Your task to perform on an android device: turn on showing notifications on the lock screen Image 0: 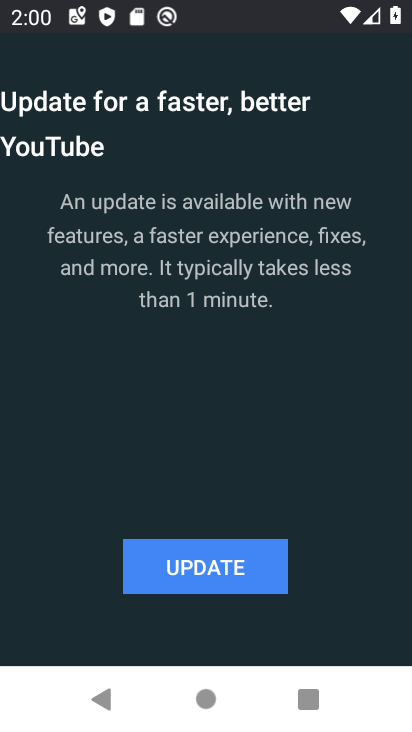
Step 0: press home button
Your task to perform on an android device: turn on showing notifications on the lock screen Image 1: 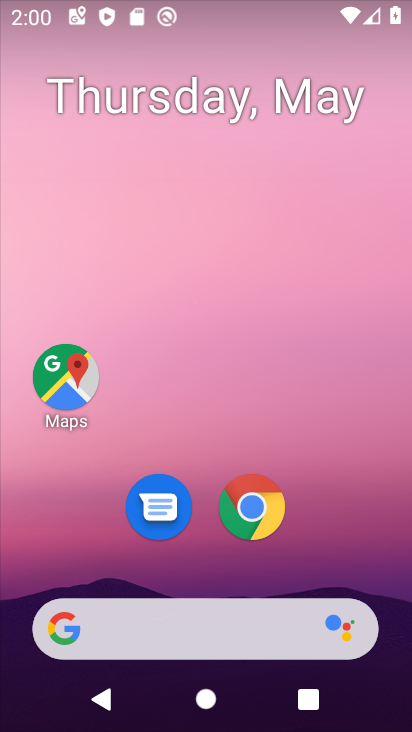
Step 1: drag from (271, 622) to (384, 4)
Your task to perform on an android device: turn on showing notifications on the lock screen Image 2: 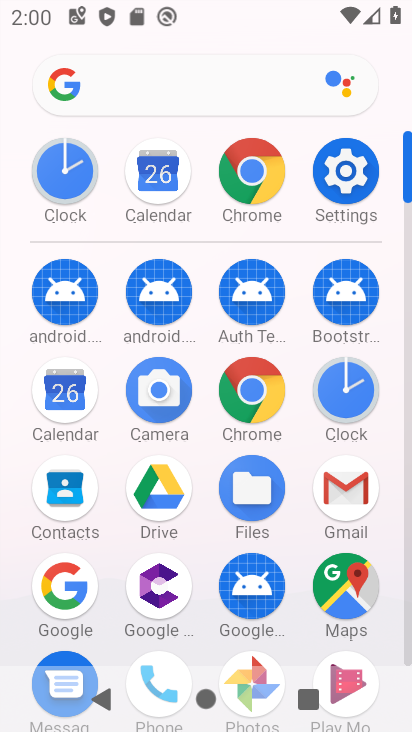
Step 2: click (370, 161)
Your task to perform on an android device: turn on showing notifications on the lock screen Image 3: 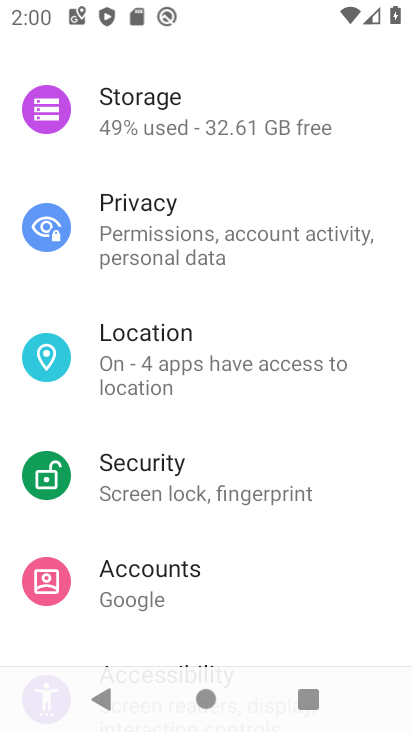
Step 3: drag from (338, 196) to (264, 727)
Your task to perform on an android device: turn on showing notifications on the lock screen Image 4: 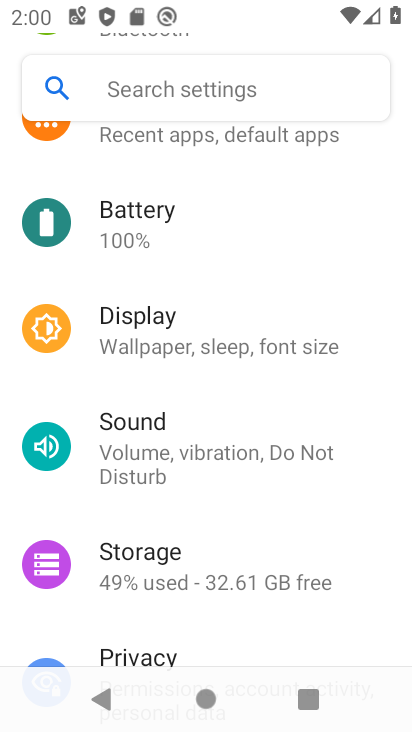
Step 4: drag from (242, 202) to (249, 523)
Your task to perform on an android device: turn on showing notifications on the lock screen Image 5: 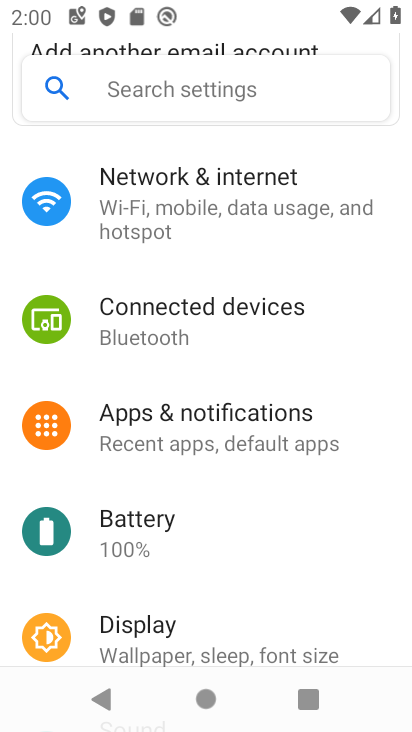
Step 5: click (230, 424)
Your task to perform on an android device: turn on showing notifications on the lock screen Image 6: 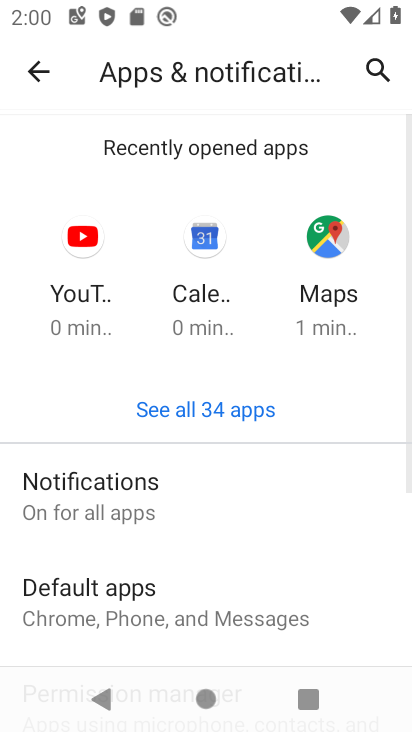
Step 6: drag from (257, 622) to (275, 137)
Your task to perform on an android device: turn on showing notifications on the lock screen Image 7: 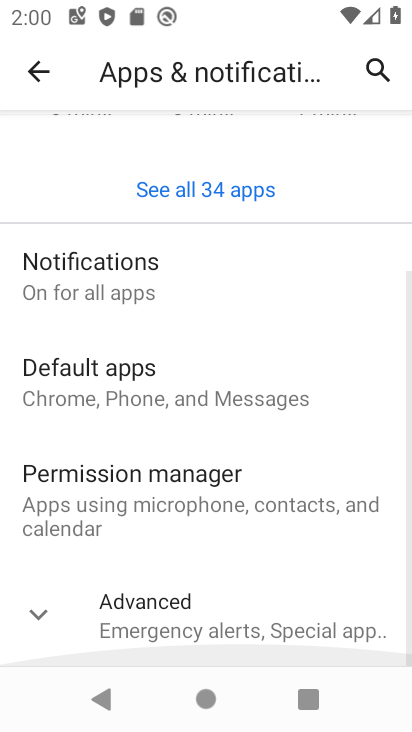
Step 7: click (153, 258)
Your task to perform on an android device: turn on showing notifications on the lock screen Image 8: 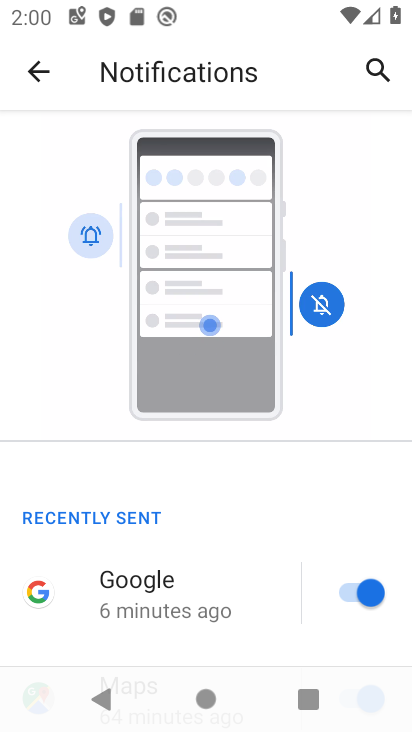
Step 8: drag from (166, 605) to (225, 19)
Your task to perform on an android device: turn on showing notifications on the lock screen Image 9: 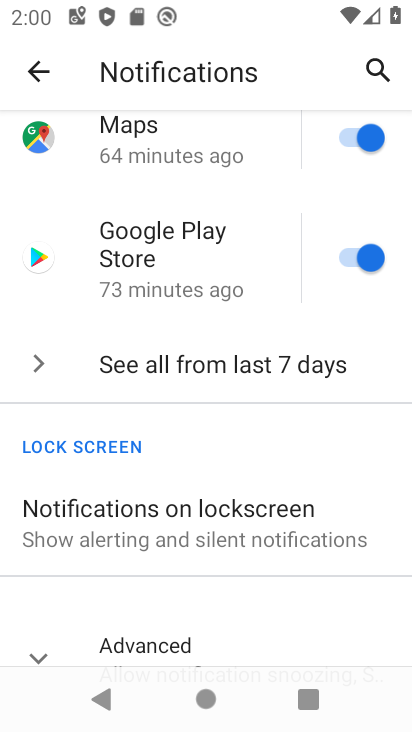
Step 9: click (263, 527)
Your task to perform on an android device: turn on showing notifications on the lock screen Image 10: 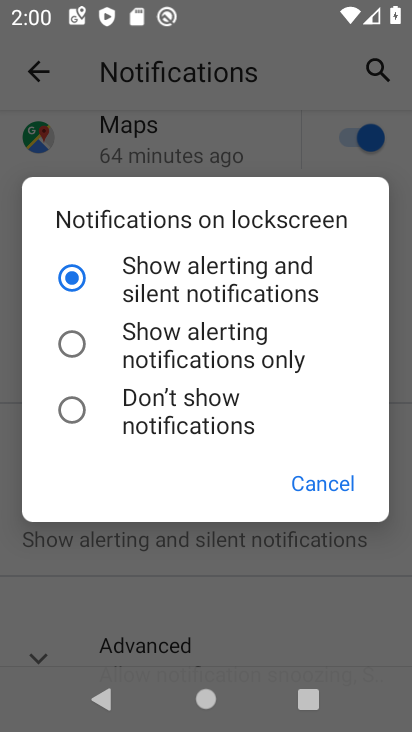
Step 10: task complete